Your task to perform on an android device: toggle show notifications on the lock screen Image 0: 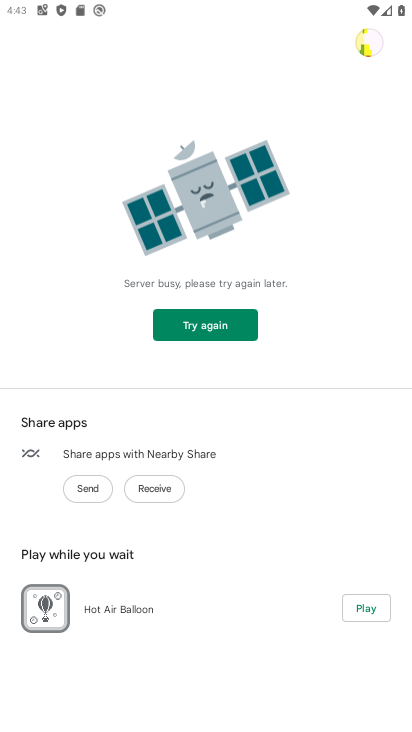
Step 0: press home button
Your task to perform on an android device: toggle show notifications on the lock screen Image 1: 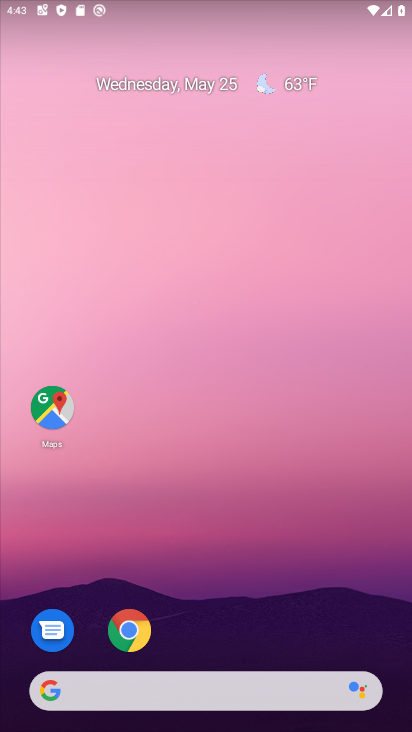
Step 1: drag from (233, 655) to (298, 119)
Your task to perform on an android device: toggle show notifications on the lock screen Image 2: 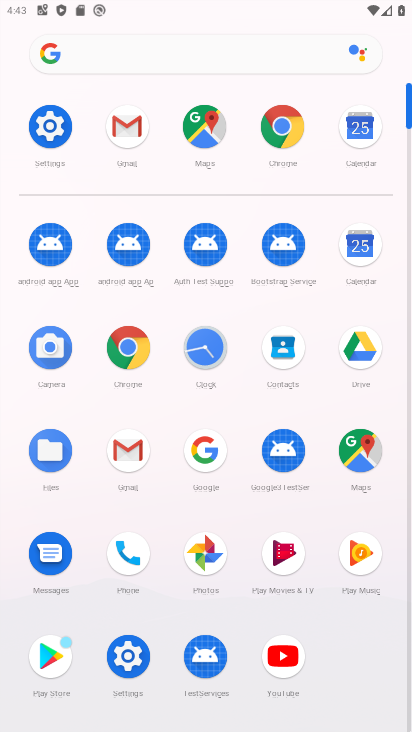
Step 2: click (54, 123)
Your task to perform on an android device: toggle show notifications on the lock screen Image 3: 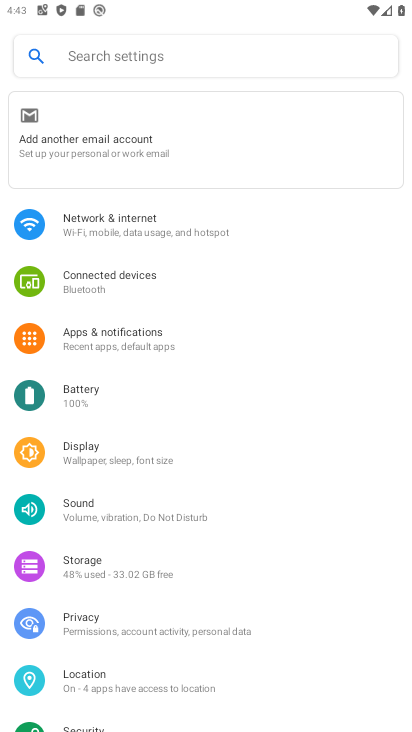
Step 3: click (102, 329)
Your task to perform on an android device: toggle show notifications on the lock screen Image 4: 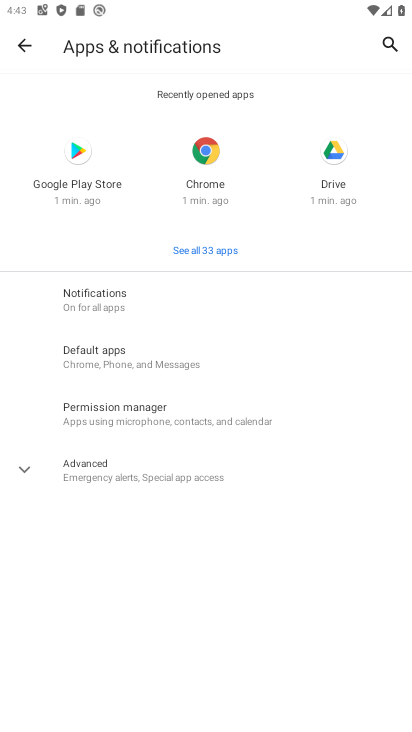
Step 4: click (70, 313)
Your task to perform on an android device: toggle show notifications on the lock screen Image 5: 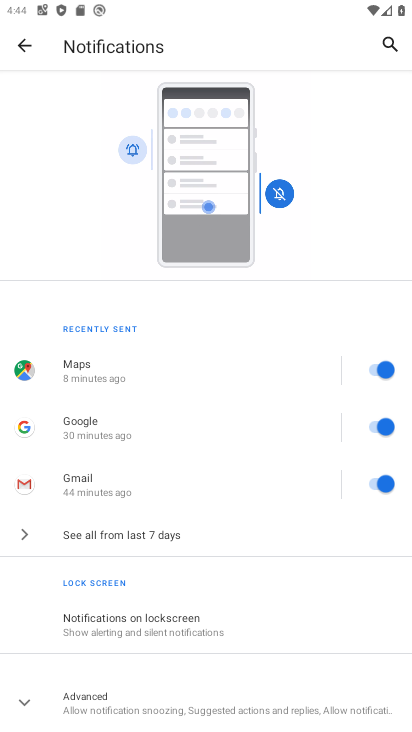
Step 5: click (110, 621)
Your task to perform on an android device: toggle show notifications on the lock screen Image 6: 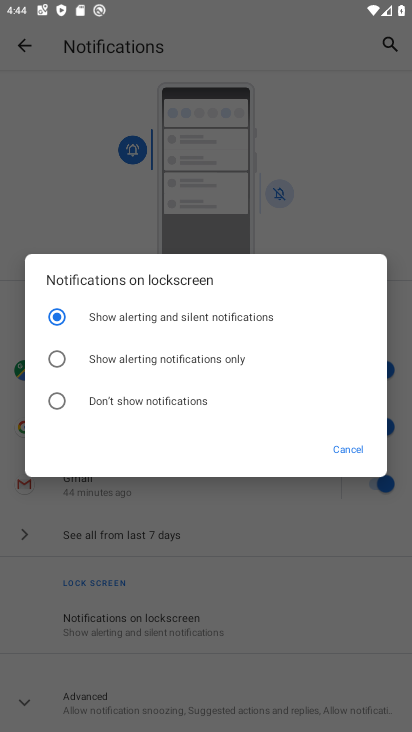
Step 6: click (46, 312)
Your task to perform on an android device: toggle show notifications on the lock screen Image 7: 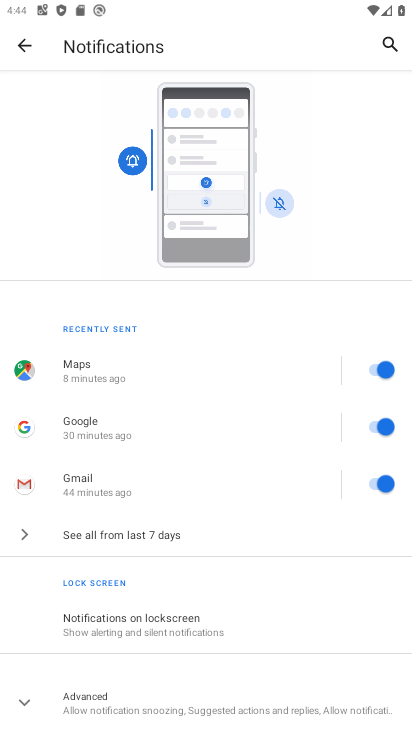
Step 7: task complete